Your task to perform on an android device: Go to Google maps Image 0: 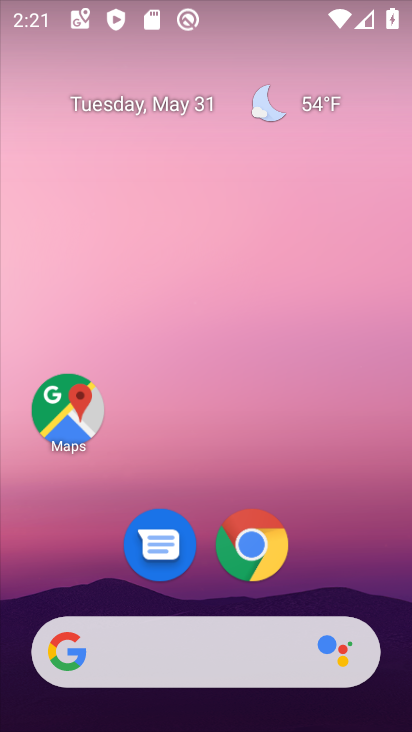
Step 0: click (75, 403)
Your task to perform on an android device: Go to Google maps Image 1: 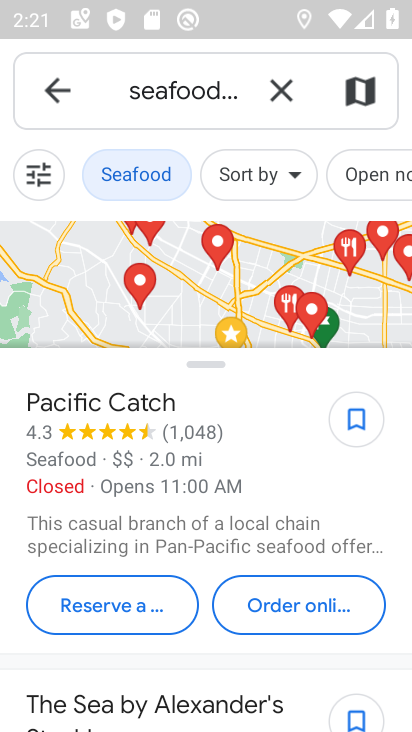
Step 1: task complete